Your task to perform on an android device: move an email to a new category in the gmail app Image 0: 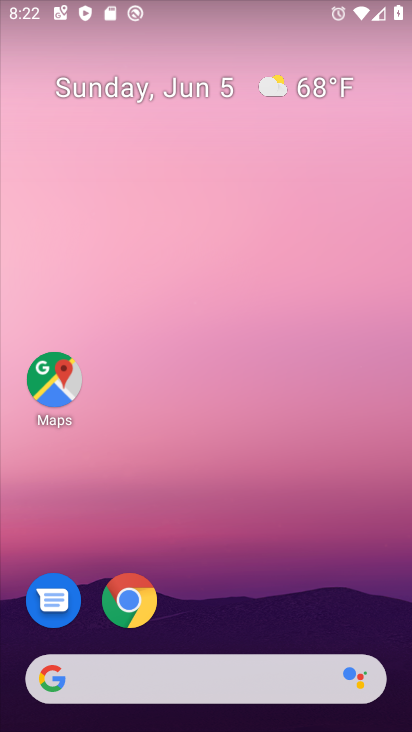
Step 0: drag from (347, 599) to (286, 58)
Your task to perform on an android device: move an email to a new category in the gmail app Image 1: 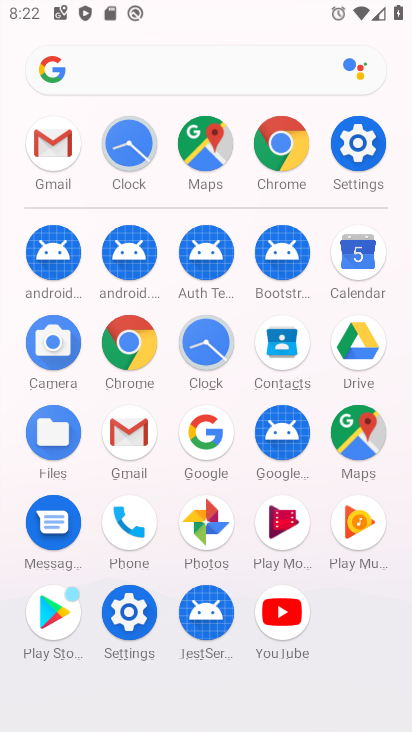
Step 1: click (139, 434)
Your task to perform on an android device: move an email to a new category in the gmail app Image 2: 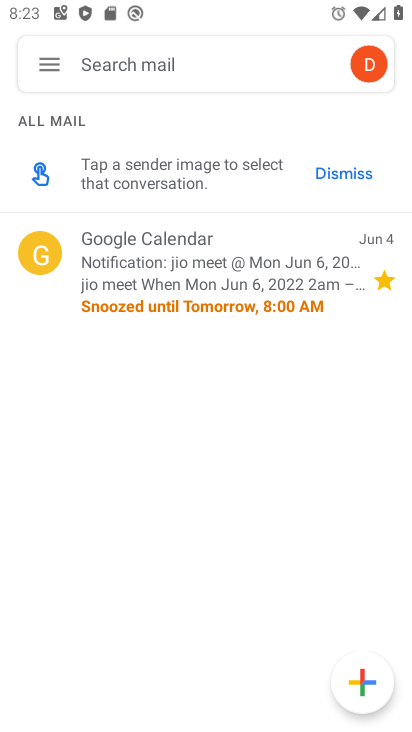
Step 2: task complete